Your task to perform on an android device: turn off smart reply in the gmail app Image 0: 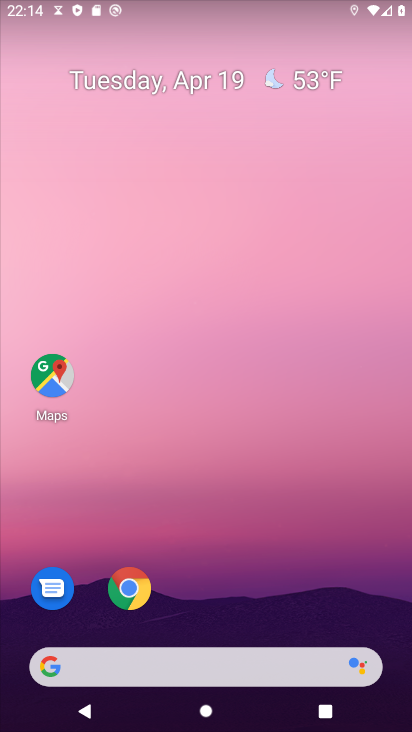
Step 0: drag from (246, 598) to (297, 71)
Your task to perform on an android device: turn off smart reply in the gmail app Image 1: 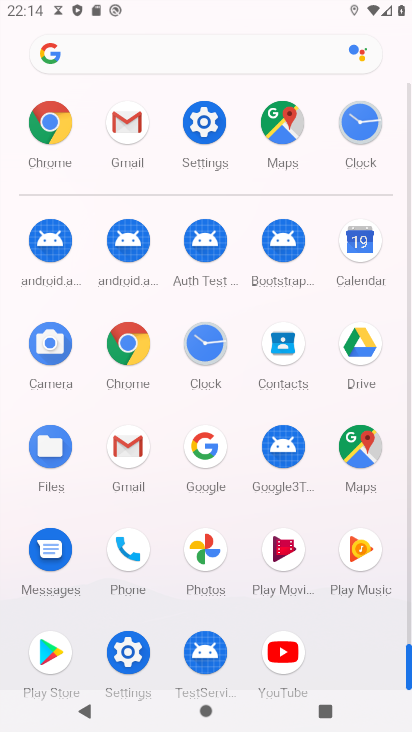
Step 1: click (123, 124)
Your task to perform on an android device: turn off smart reply in the gmail app Image 2: 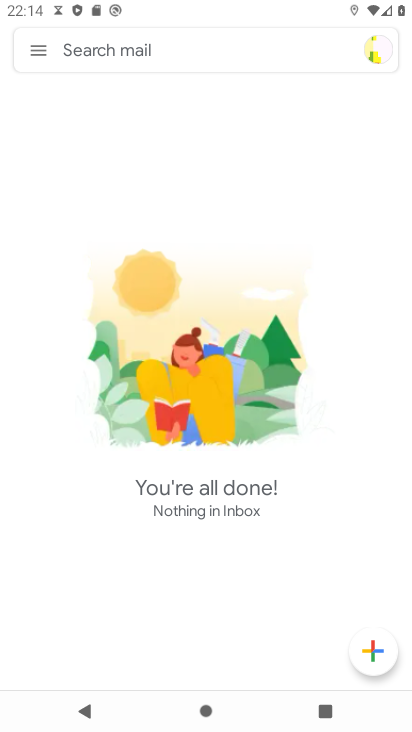
Step 2: click (35, 51)
Your task to perform on an android device: turn off smart reply in the gmail app Image 3: 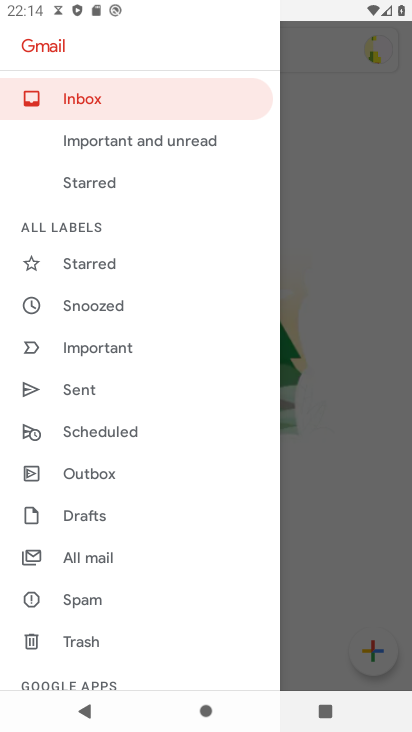
Step 3: drag from (146, 486) to (182, 420)
Your task to perform on an android device: turn off smart reply in the gmail app Image 4: 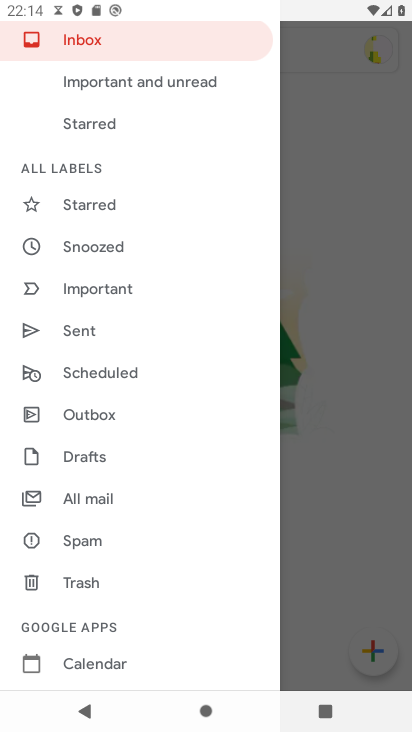
Step 4: drag from (143, 527) to (178, 429)
Your task to perform on an android device: turn off smart reply in the gmail app Image 5: 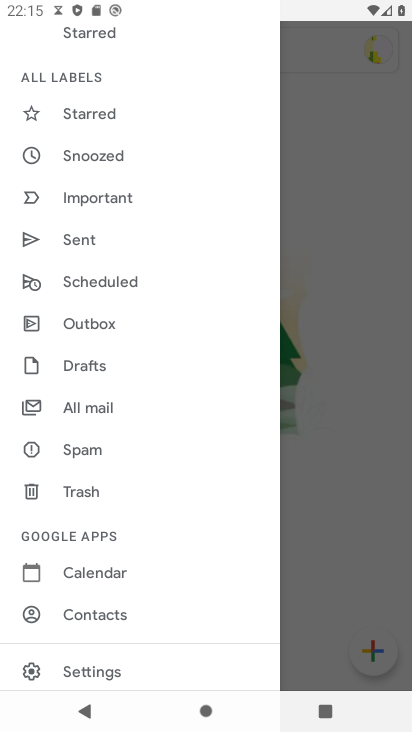
Step 5: drag from (148, 545) to (166, 429)
Your task to perform on an android device: turn off smart reply in the gmail app Image 6: 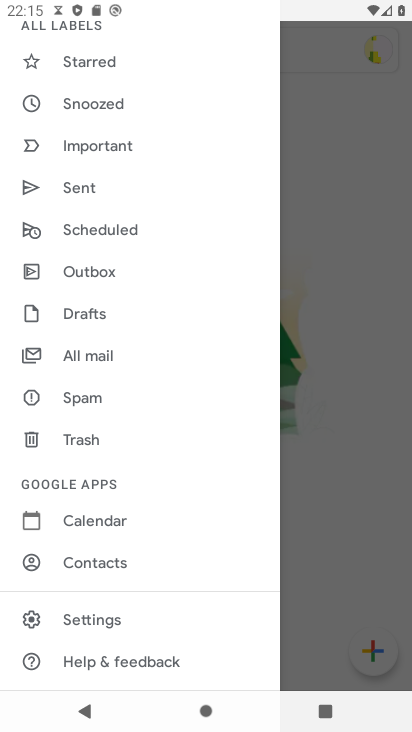
Step 6: click (94, 615)
Your task to perform on an android device: turn off smart reply in the gmail app Image 7: 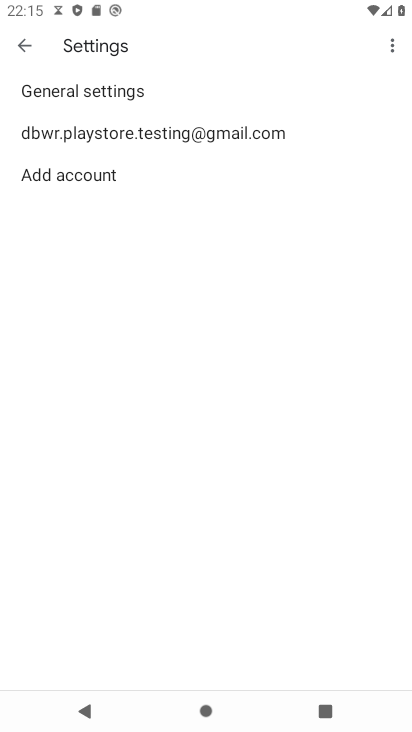
Step 7: click (141, 135)
Your task to perform on an android device: turn off smart reply in the gmail app Image 8: 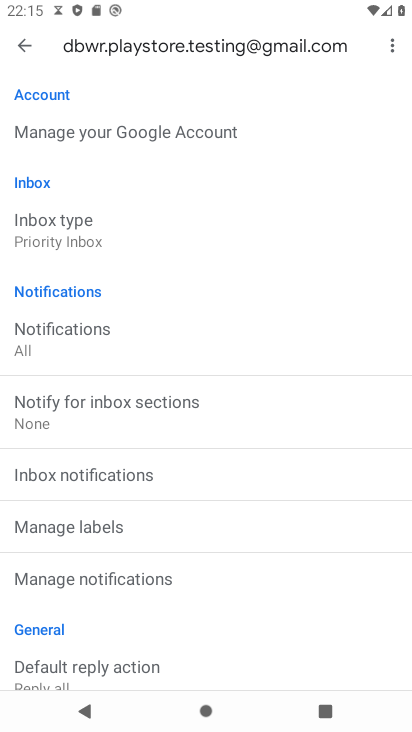
Step 8: drag from (98, 559) to (163, 436)
Your task to perform on an android device: turn off smart reply in the gmail app Image 9: 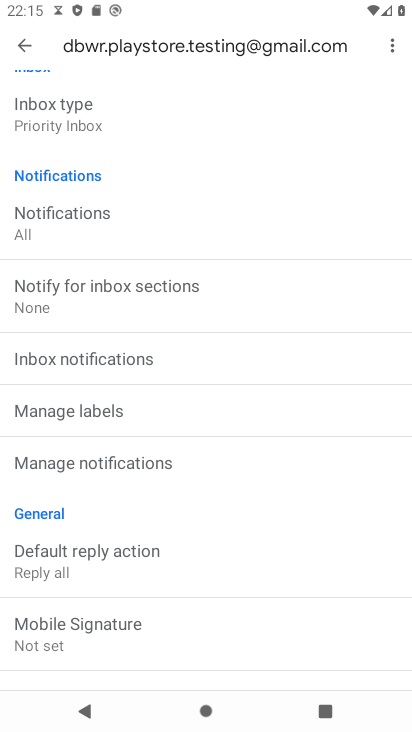
Step 9: drag from (147, 579) to (215, 458)
Your task to perform on an android device: turn off smart reply in the gmail app Image 10: 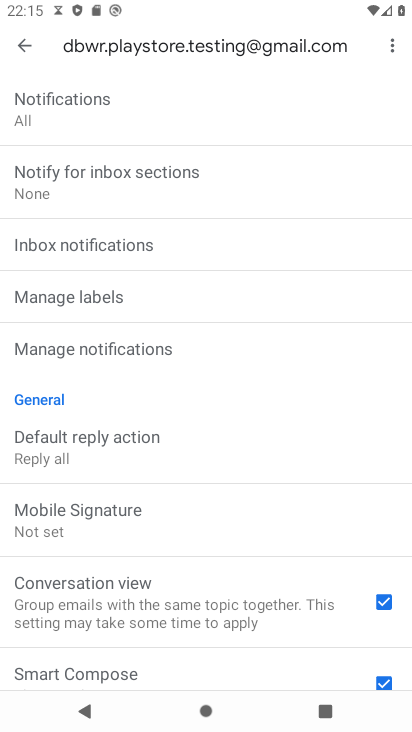
Step 10: drag from (170, 577) to (226, 463)
Your task to perform on an android device: turn off smart reply in the gmail app Image 11: 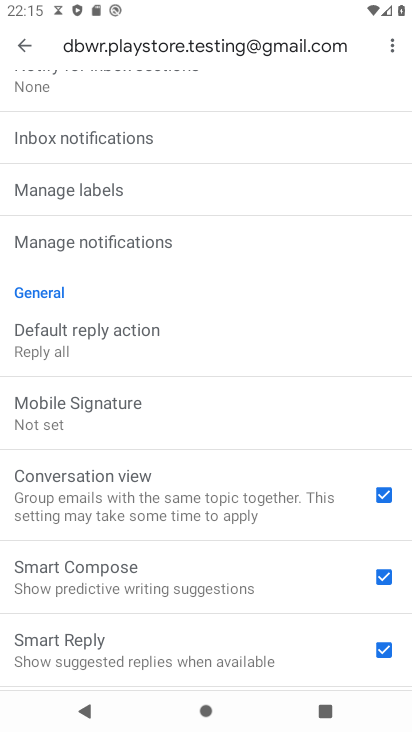
Step 11: drag from (195, 581) to (235, 489)
Your task to perform on an android device: turn off smart reply in the gmail app Image 12: 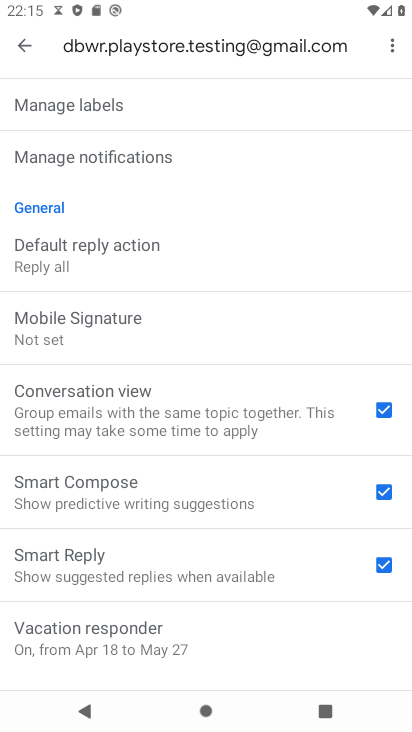
Step 12: click (378, 564)
Your task to perform on an android device: turn off smart reply in the gmail app Image 13: 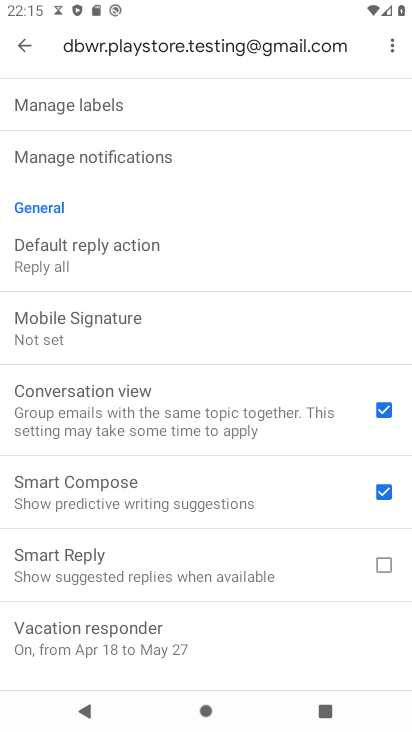
Step 13: task complete